Your task to perform on an android device: What's on my calendar tomorrow? Image 0: 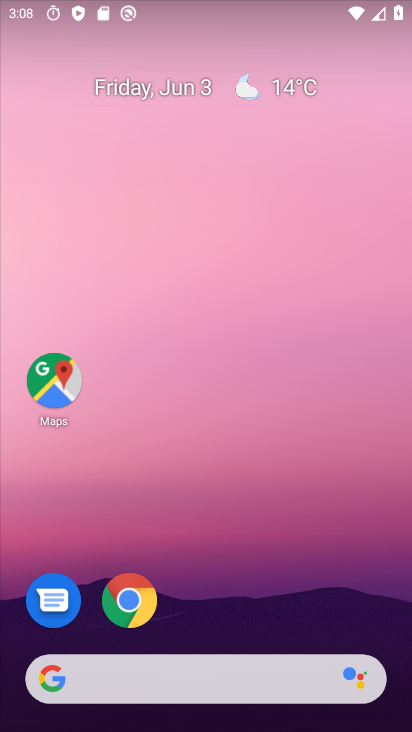
Step 0: drag from (300, 574) to (292, 56)
Your task to perform on an android device: What's on my calendar tomorrow? Image 1: 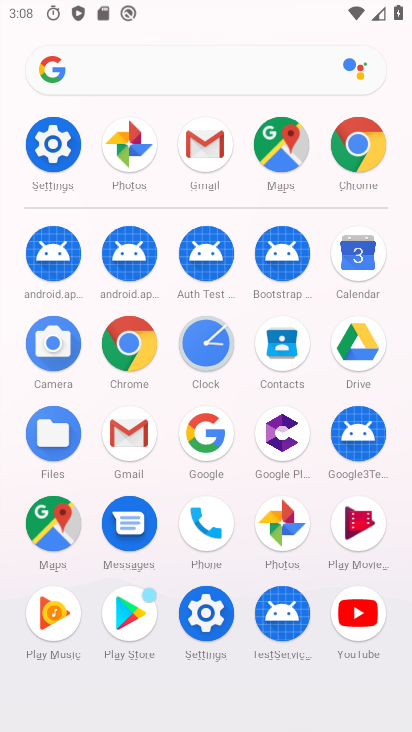
Step 1: drag from (18, 494) to (22, 173)
Your task to perform on an android device: What's on my calendar tomorrow? Image 2: 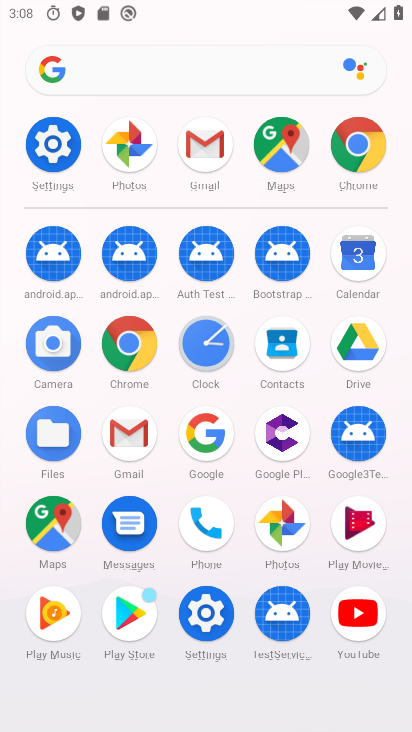
Step 2: click (355, 252)
Your task to perform on an android device: What's on my calendar tomorrow? Image 3: 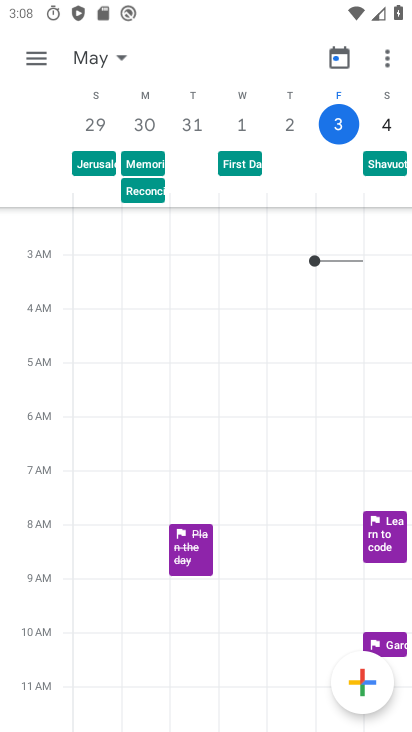
Step 3: click (36, 59)
Your task to perform on an android device: What's on my calendar tomorrow? Image 4: 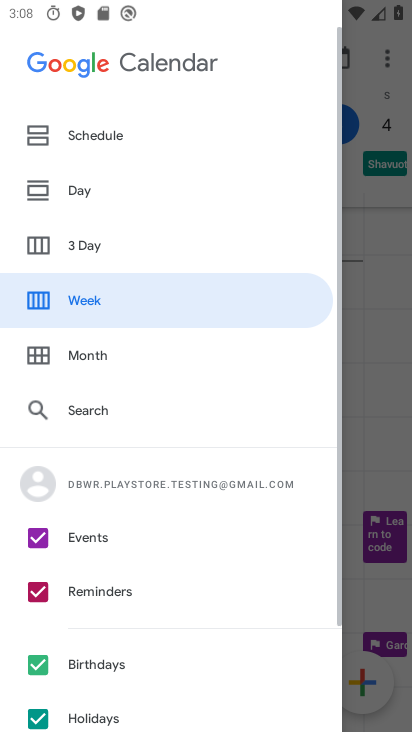
Step 4: drag from (270, 188) to (272, 576)
Your task to perform on an android device: What's on my calendar tomorrow? Image 5: 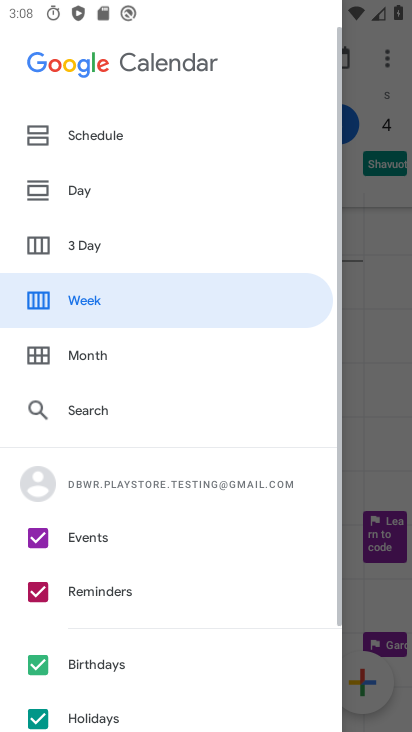
Step 5: click (226, 294)
Your task to perform on an android device: What's on my calendar tomorrow? Image 6: 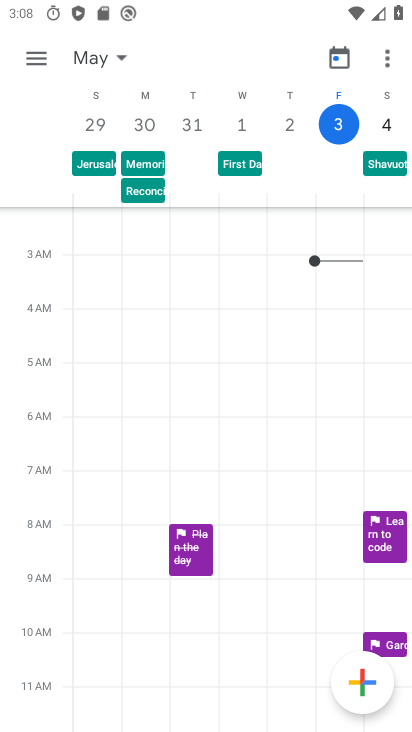
Step 6: click (335, 127)
Your task to perform on an android device: What's on my calendar tomorrow? Image 7: 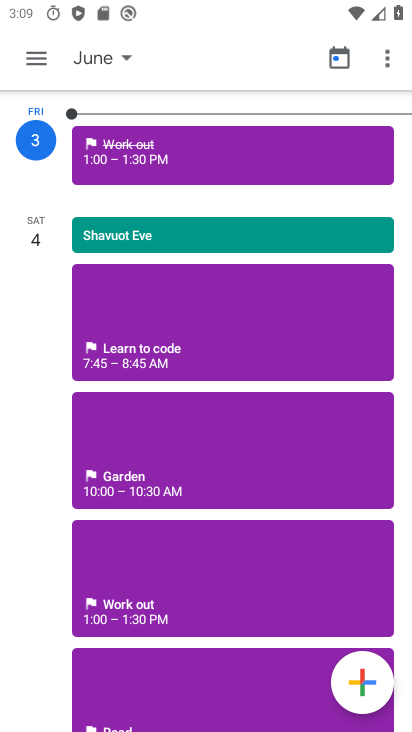
Step 7: task complete